Your task to perform on an android device: add a contact Image 0: 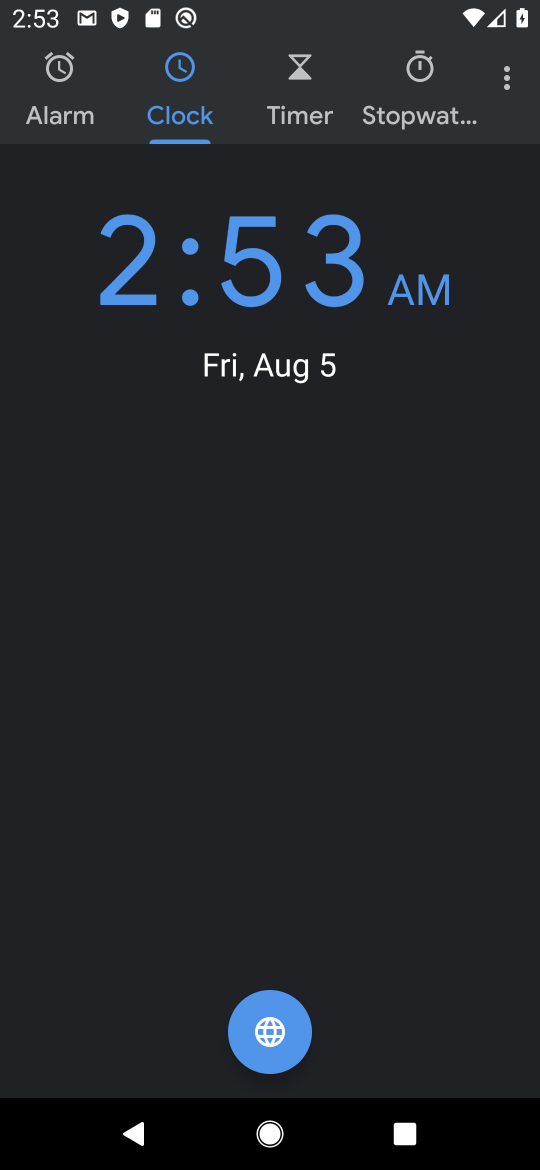
Step 0: press home button
Your task to perform on an android device: add a contact Image 1: 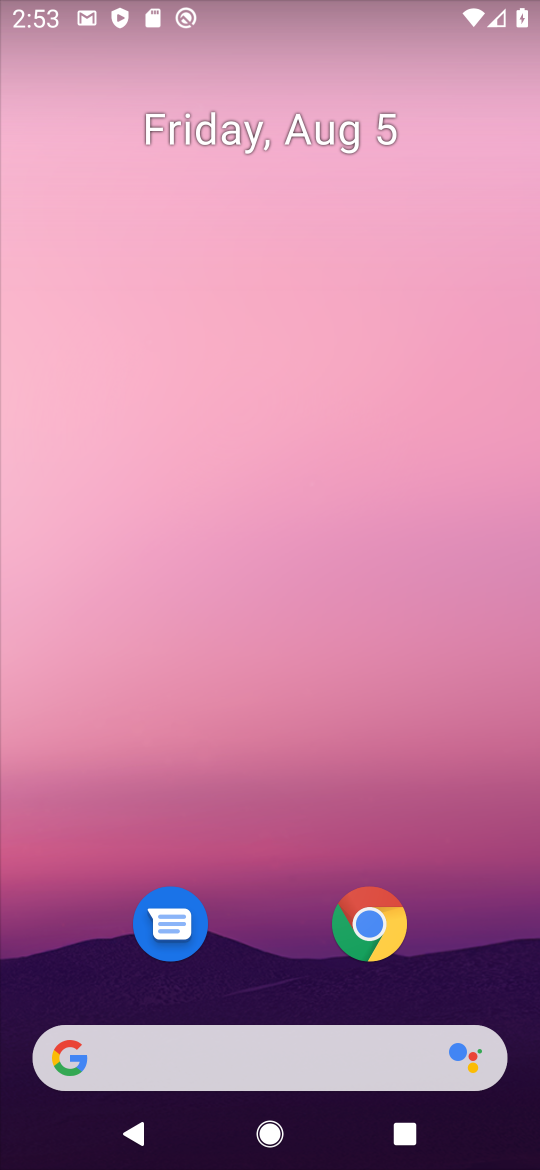
Step 1: drag from (290, 761) to (292, 137)
Your task to perform on an android device: add a contact Image 2: 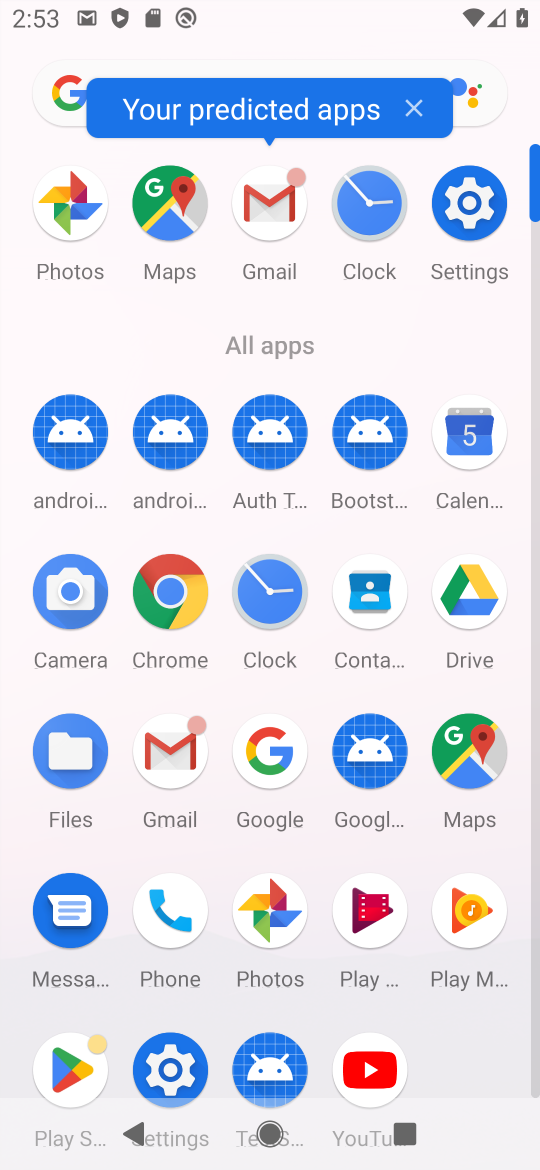
Step 2: click (368, 622)
Your task to perform on an android device: add a contact Image 3: 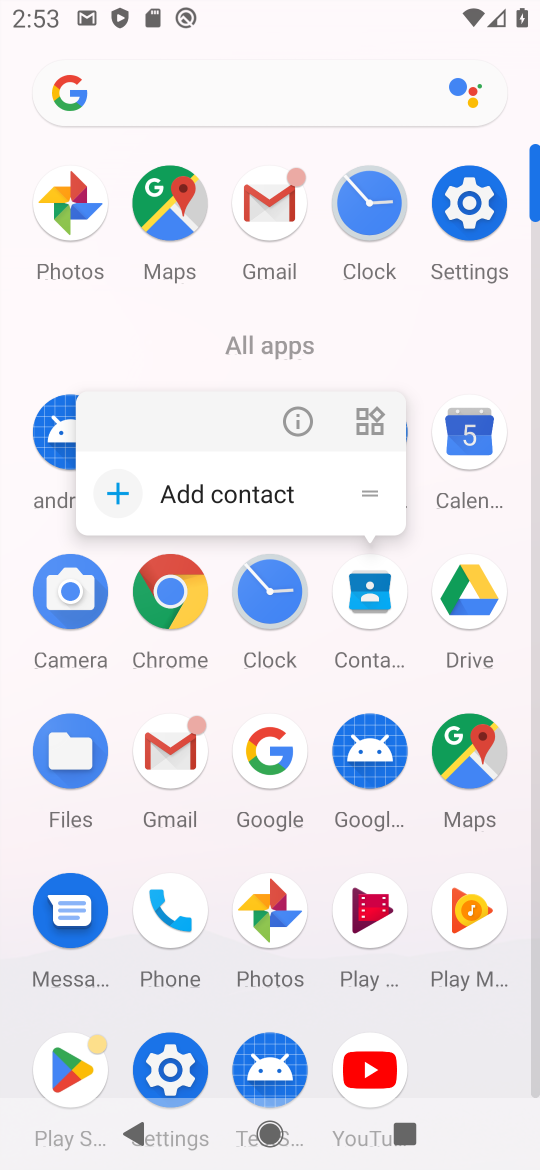
Step 3: click (365, 599)
Your task to perform on an android device: add a contact Image 4: 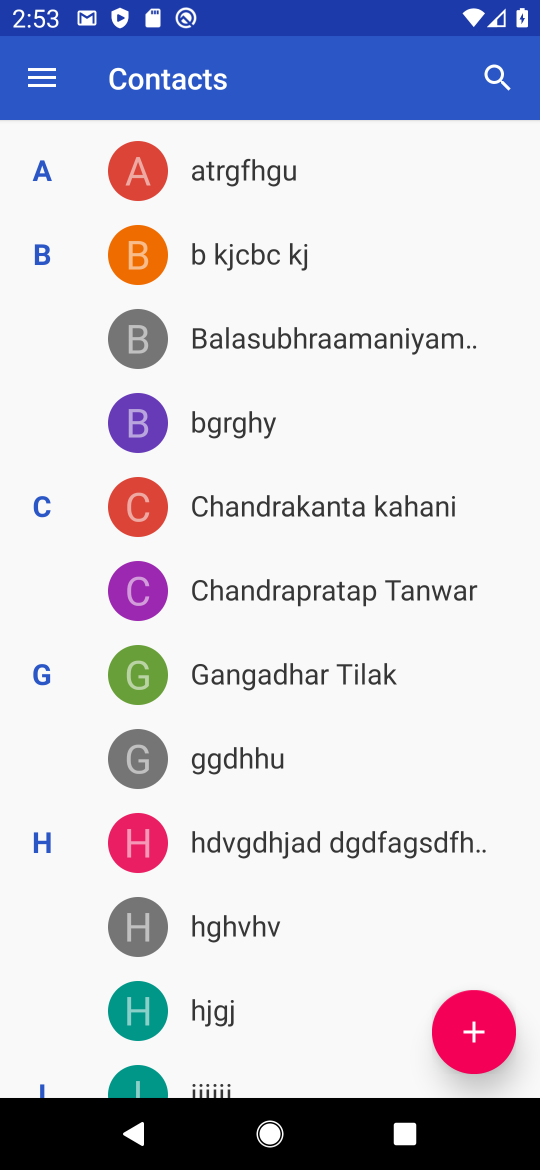
Step 4: click (480, 1045)
Your task to perform on an android device: add a contact Image 5: 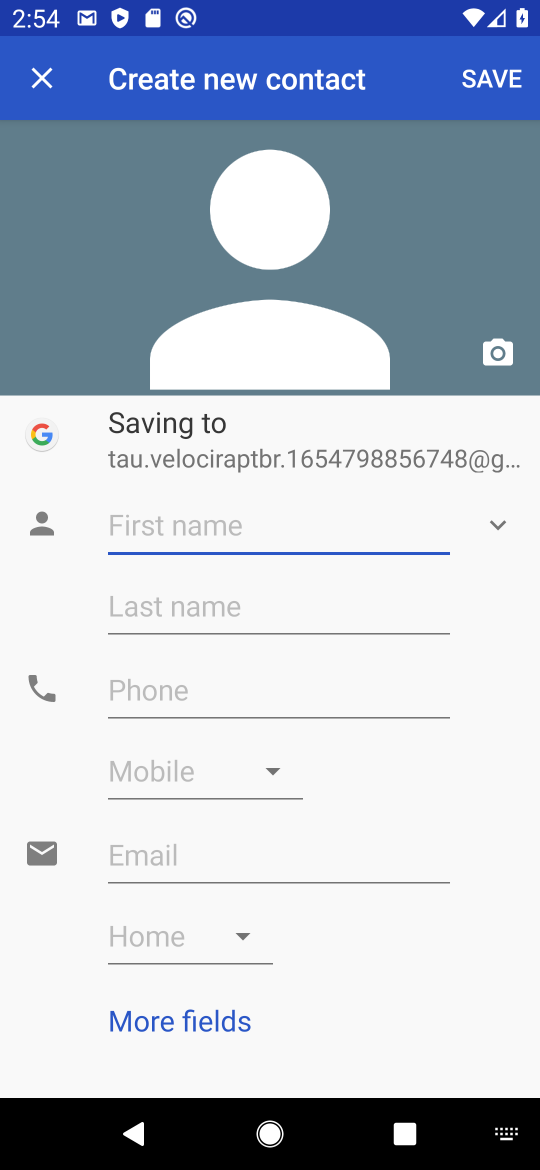
Step 5: type "fdsgfhg"
Your task to perform on an android device: add a contact Image 6: 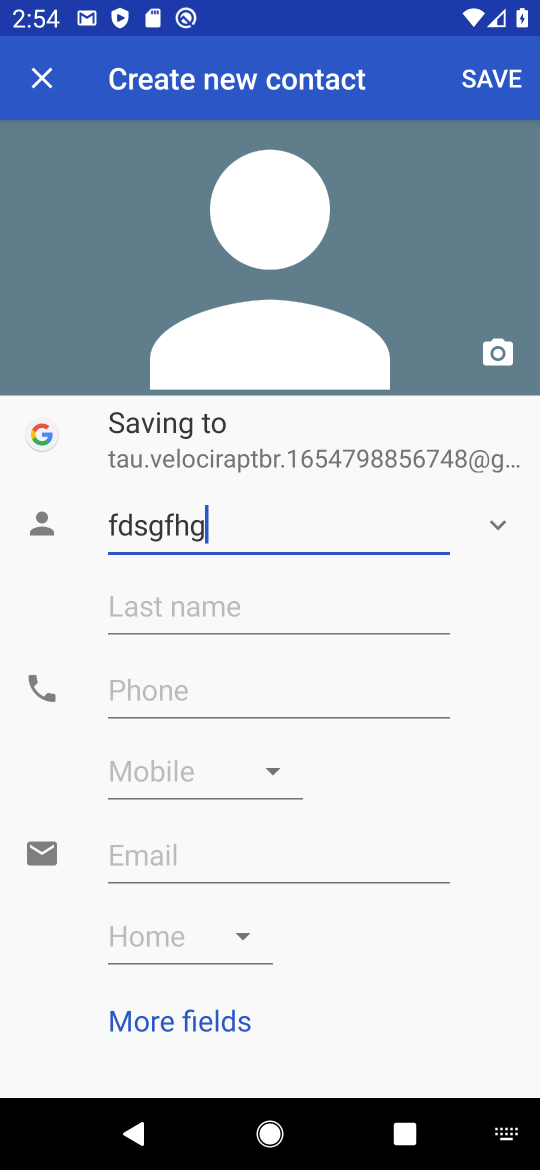
Step 6: click (496, 68)
Your task to perform on an android device: add a contact Image 7: 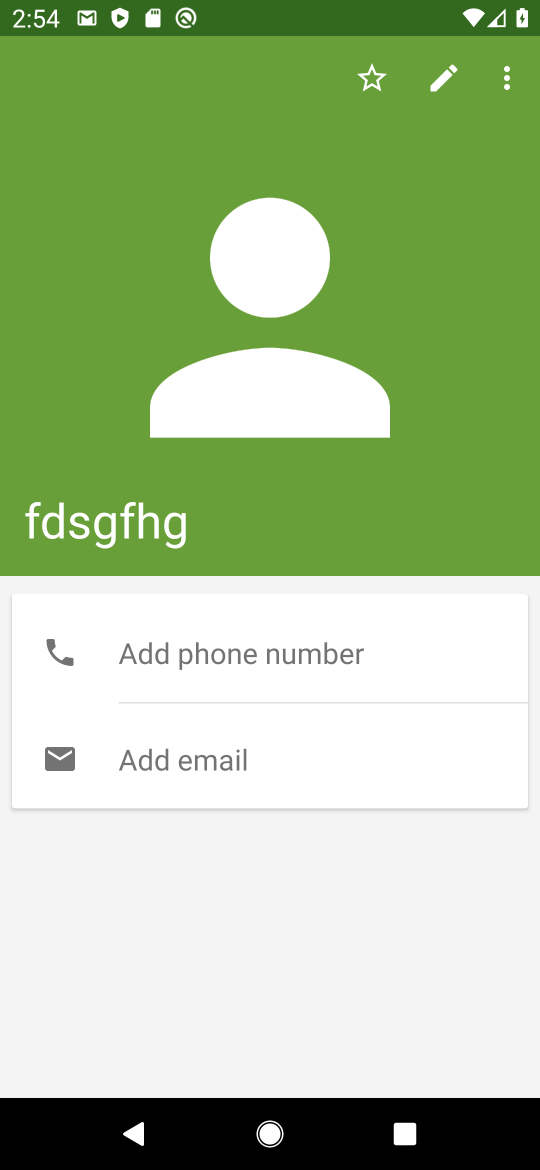
Step 7: task complete